Your task to perform on an android device: Open Google Chrome and open the bookmarks view Image 0: 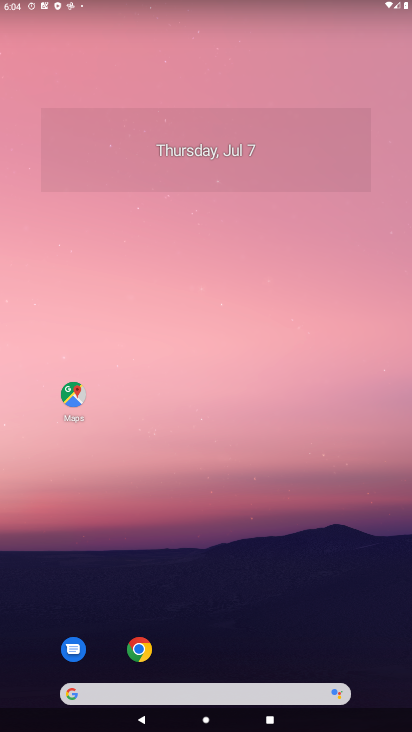
Step 0: drag from (365, 659) to (245, 0)
Your task to perform on an android device: Open Google Chrome and open the bookmarks view Image 1: 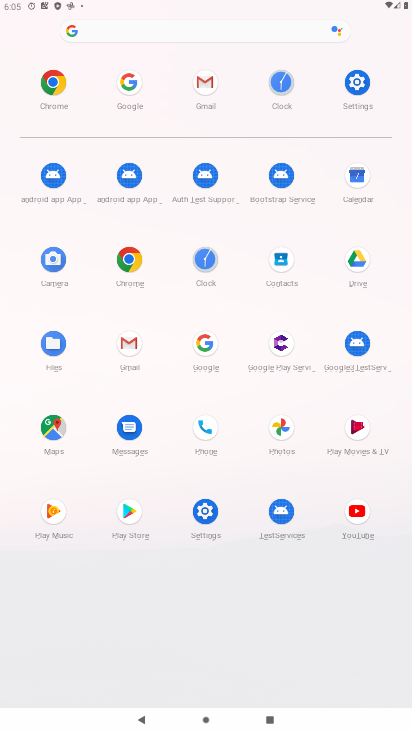
Step 1: click (123, 272)
Your task to perform on an android device: Open Google Chrome and open the bookmarks view Image 2: 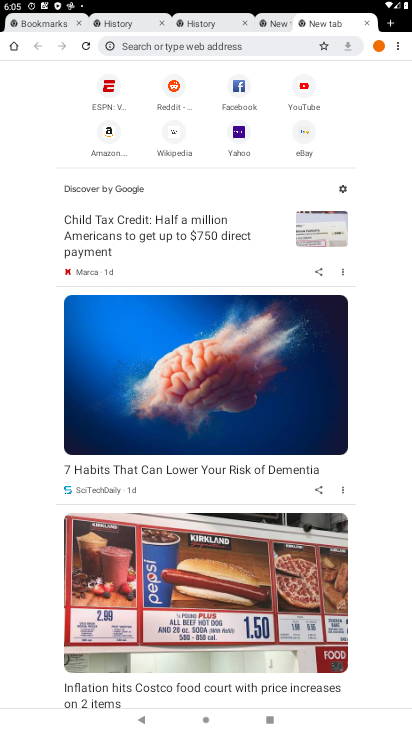
Step 2: click (401, 45)
Your task to perform on an android device: Open Google Chrome and open the bookmarks view Image 3: 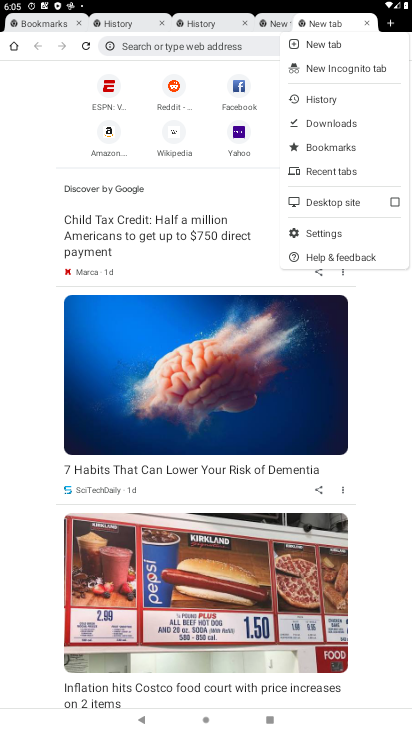
Step 3: click (325, 143)
Your task to perform on an android device: Open Google Chrome and open the bookmarks view Image 4: 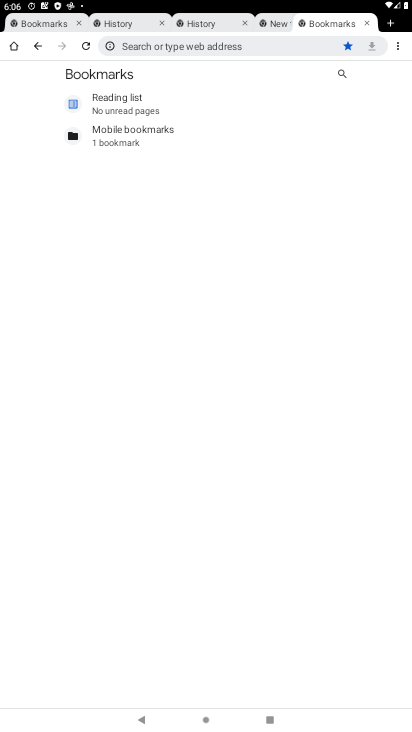
Step 4: task complete